Your task to perform on an android device: Open internet settings Image 0: 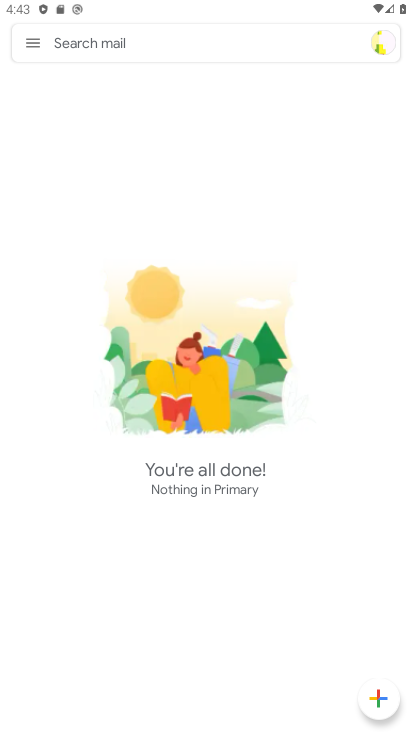
Step 0: press home button
Your task to perform on an android device: Open internet settings Image 1: 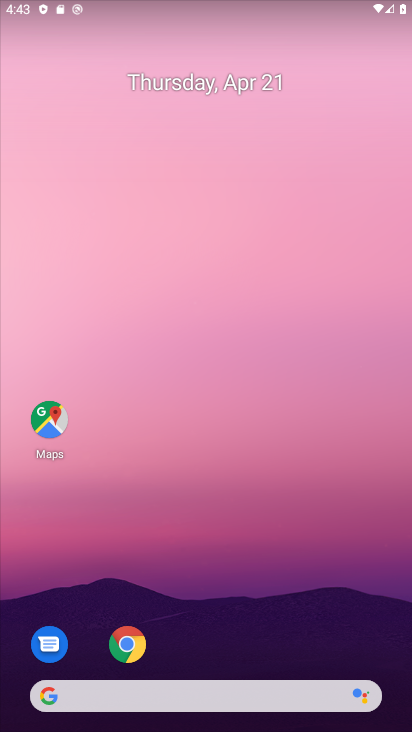
Step 1: drag from (280, 556) to (287, 193)
Your task to perform on an android device: Open internet settings Image 2: 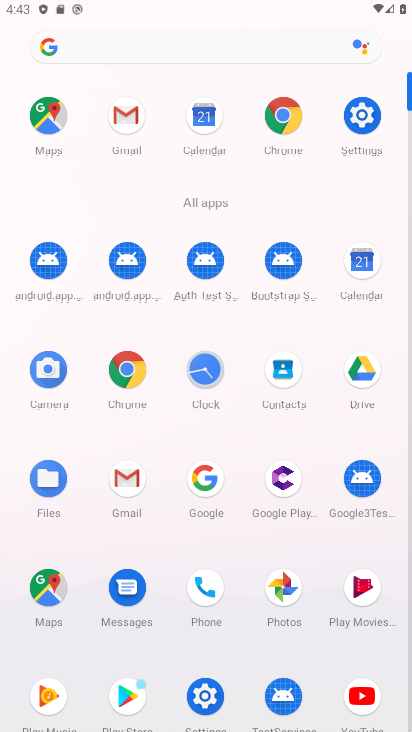
Step 2: click (360, 109)
Your task to perform on an android device: Open internet settings Image 3: 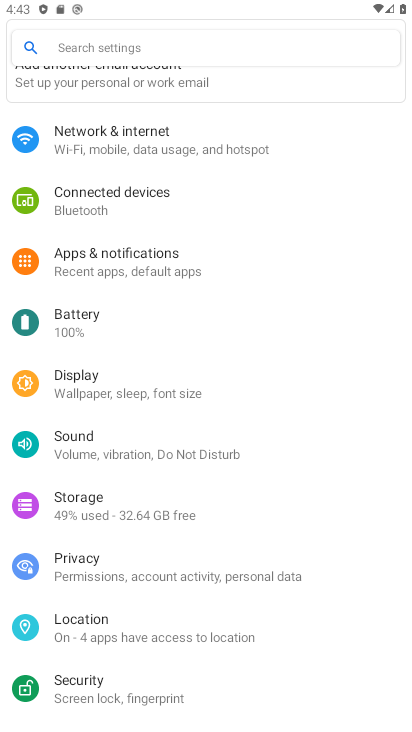
Step 3: click (170, 142)
Your task to perform on an android device: Open internet settings Image 4: 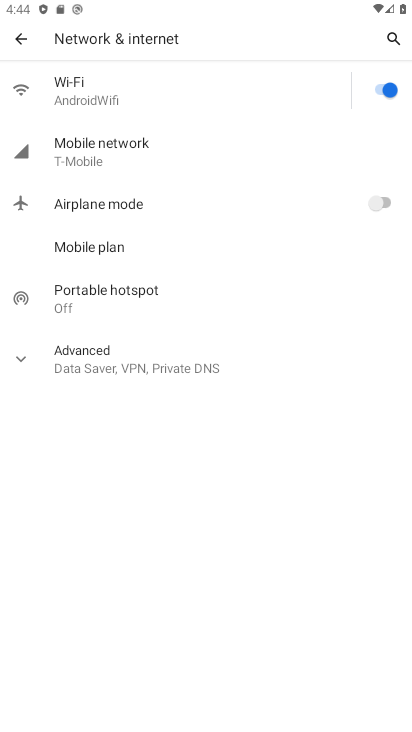
Step 4: task complete